Your task to perform on an android device: Show the shopping cart on walmart. Add razer kraken to the cart on walmart Image 0: 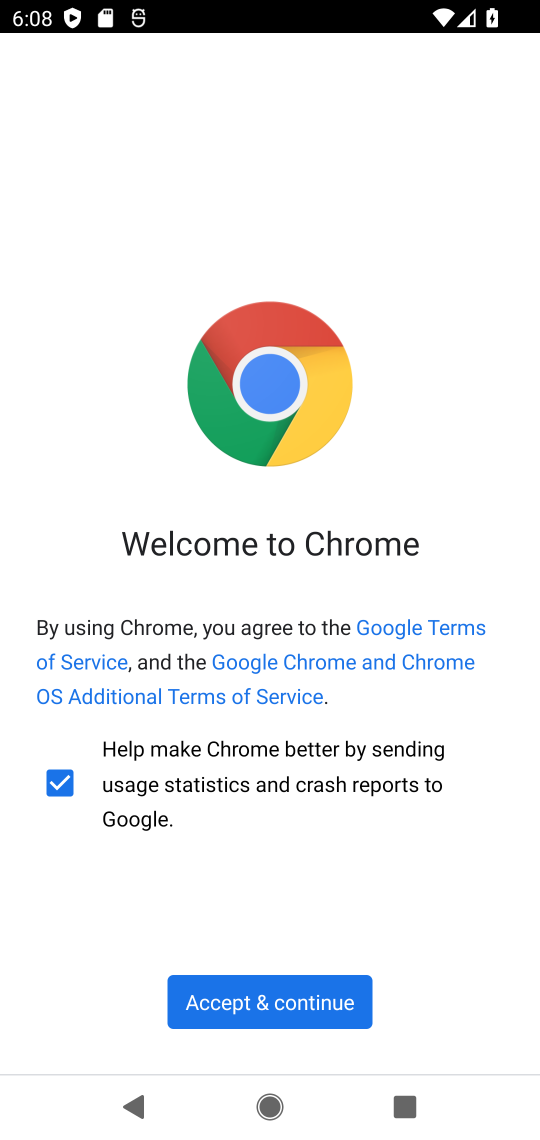
Step 0: click (200, 1009)
Your task to perform on an android device: Show the shopping cart on walmart. Add razer kraken to the cart on walmart Image 1: 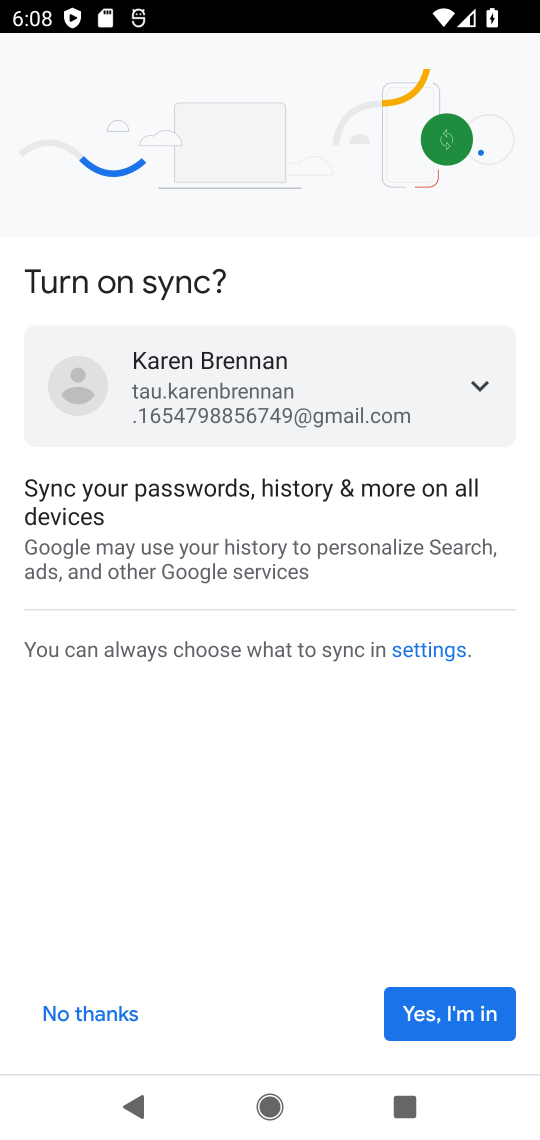
Step 1: click (428, 995)
Your task to perform on an android device: Show the shopping cart on walmart. Add razer kraken to the cart on walmart Image 2: 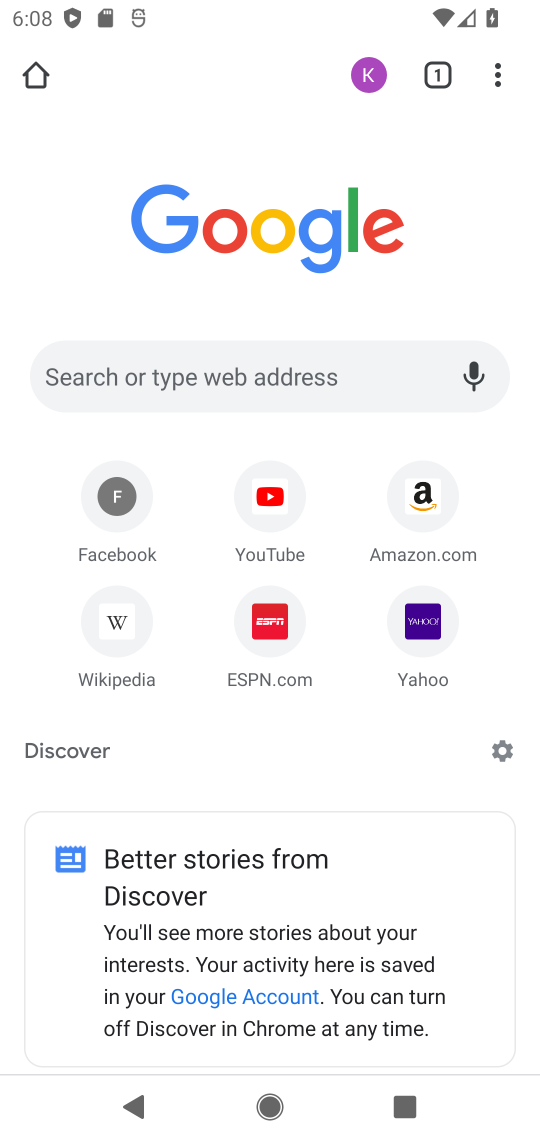
Step 2: click (287, 383)
Your task to perform on an android device: Show the shopping cart on walmart. Add razer kraken to the cart on walmart Image 3: 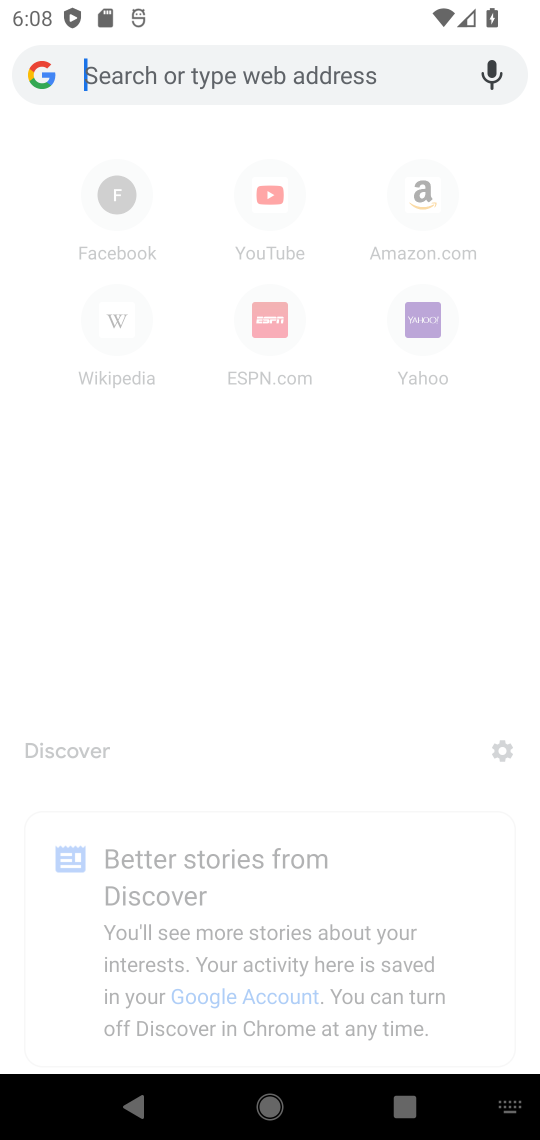
Step 3: type "walmart"
Your task to perform on an android device: Show the shopping cart on walmart. Add razer kraken to the cart on walmart Image 4: 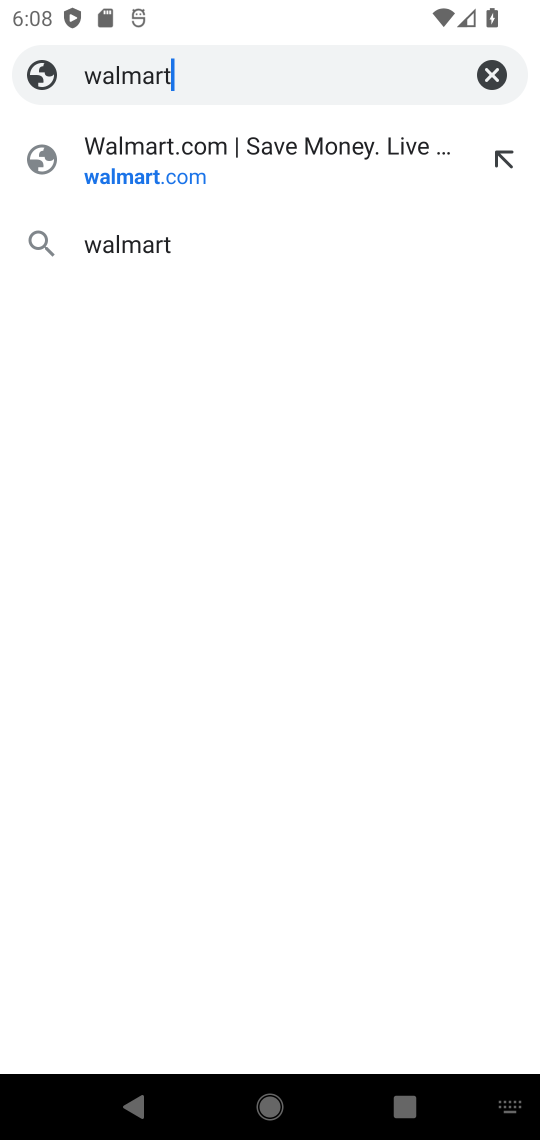
Step 4: click (201, 146)
Your task to perform on an android device: Show the shopping cart on walmart. Add razer kraken to the cart on walmart Image 5: 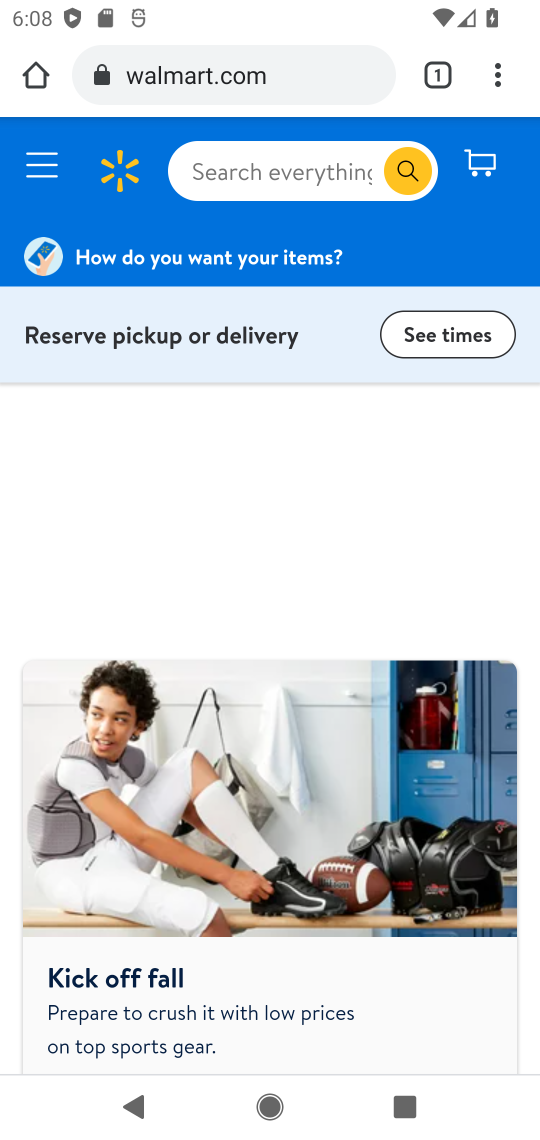
Step 5: click (478, 156)
Your task to perform on an android device: Show the shopping cart on walmart. Add razer kraken to the cart on walmart Image 6: 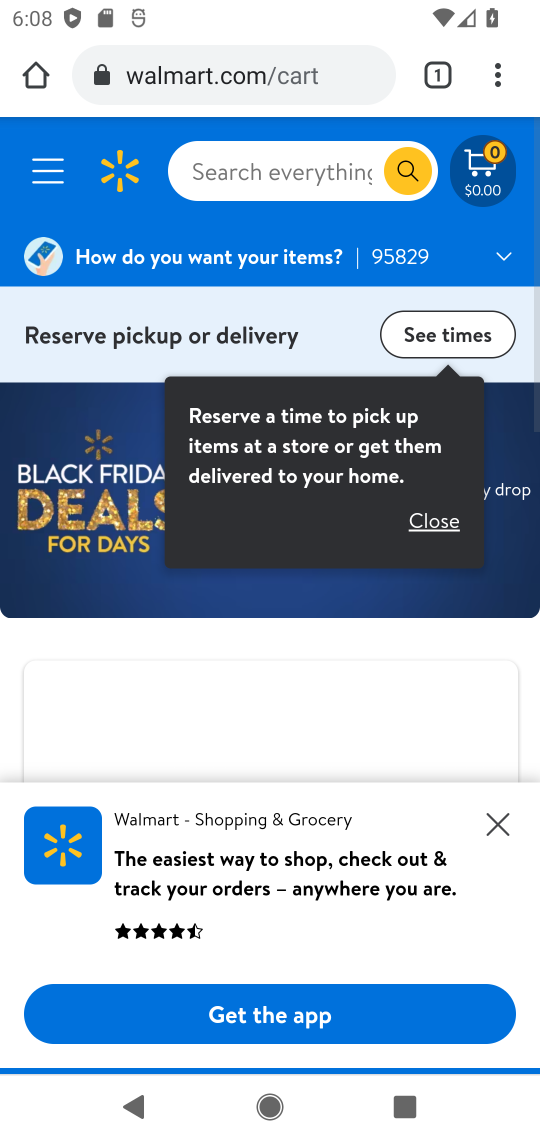
Step 6: click (485, 147)
Your task to perform on an android device: Show the shopping cart on walmart. Add razer kraken to the cart on walmart Image 7: 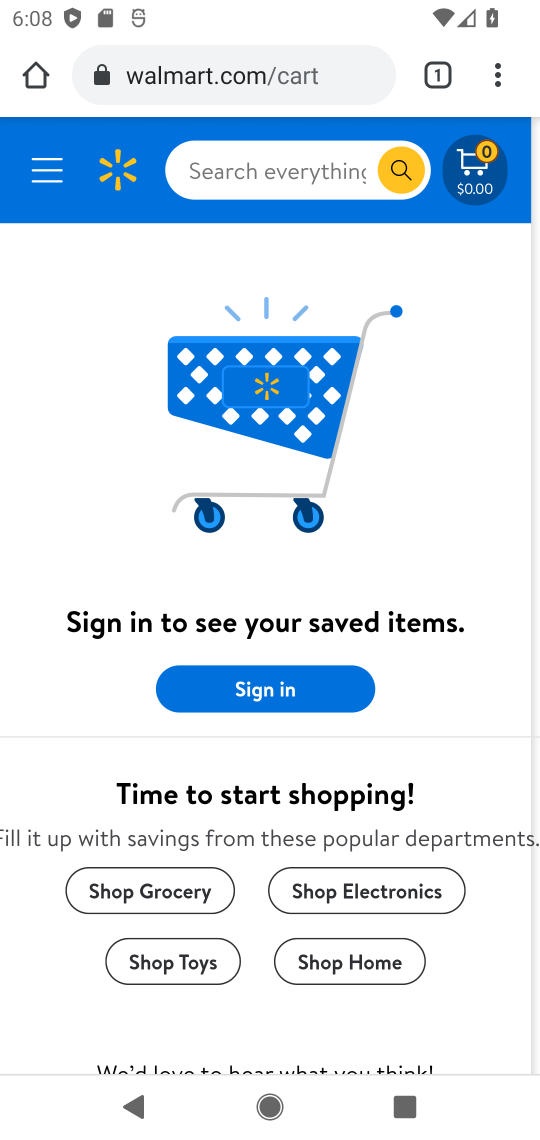
Step 7: click (297, 163)
Your task to perform on an android device: Show the shopping cart on walmart. Add razer kraken to the cart on walmart Image 8: 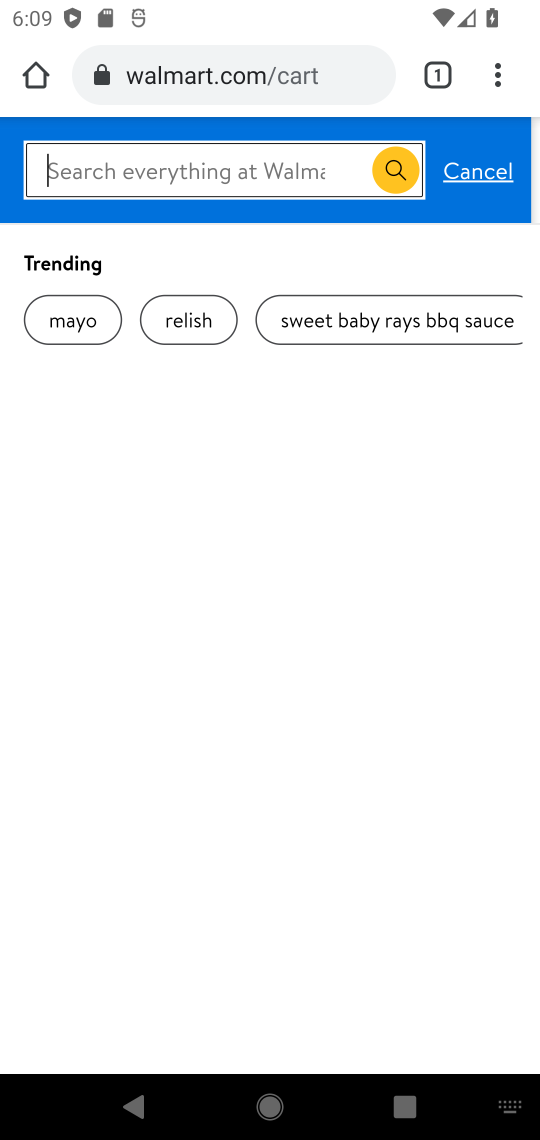
Step 8: type " razer kraken"
Your task to perform on an android device: Show the shopping cart on walmart. Add razer kraken to the cart on walmart Image 9: 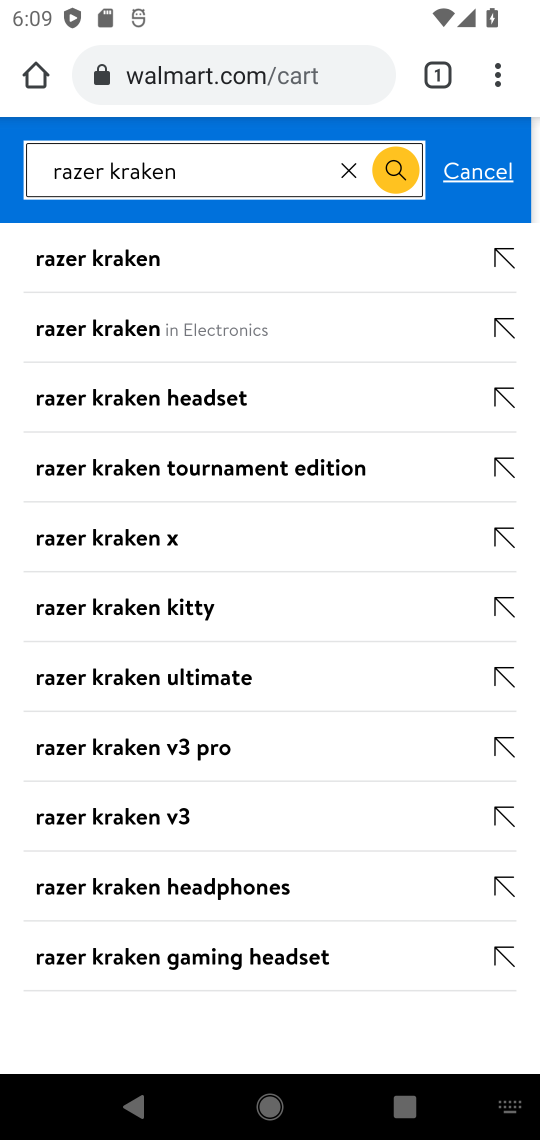
Step 9: click (93, 252)
Your task to perform on an android device: Show the shopping cart on walmart. Add razer kraken to the cart on walmart Image 10: 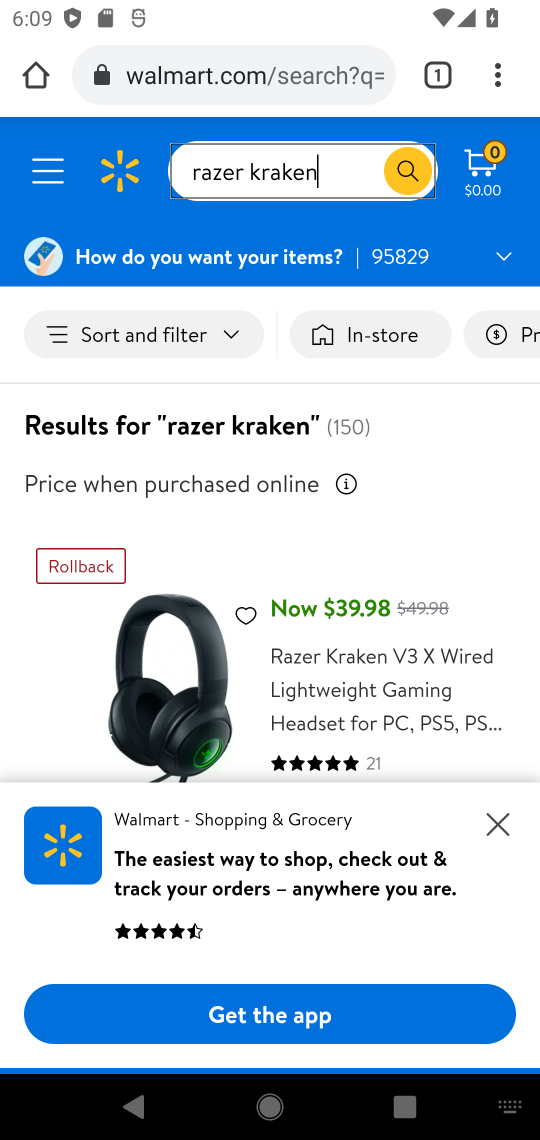
Step 10: click (86, 679)
Your task to perform on an android device: Show the shopping cart on walmart. Add razer kraken to the cart on walmart Image 11: 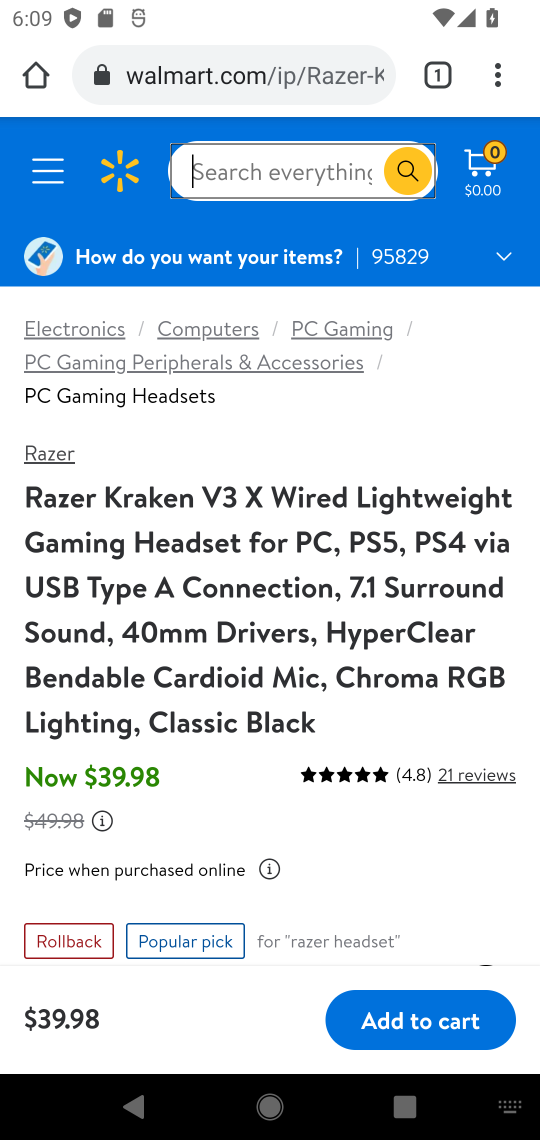
Step 11: drag from (400, 843) to (367, 423)
Your task to perform on an android device: Show the shopping cart on walmart. Add razer kraken to the cart on walmart Image 12: 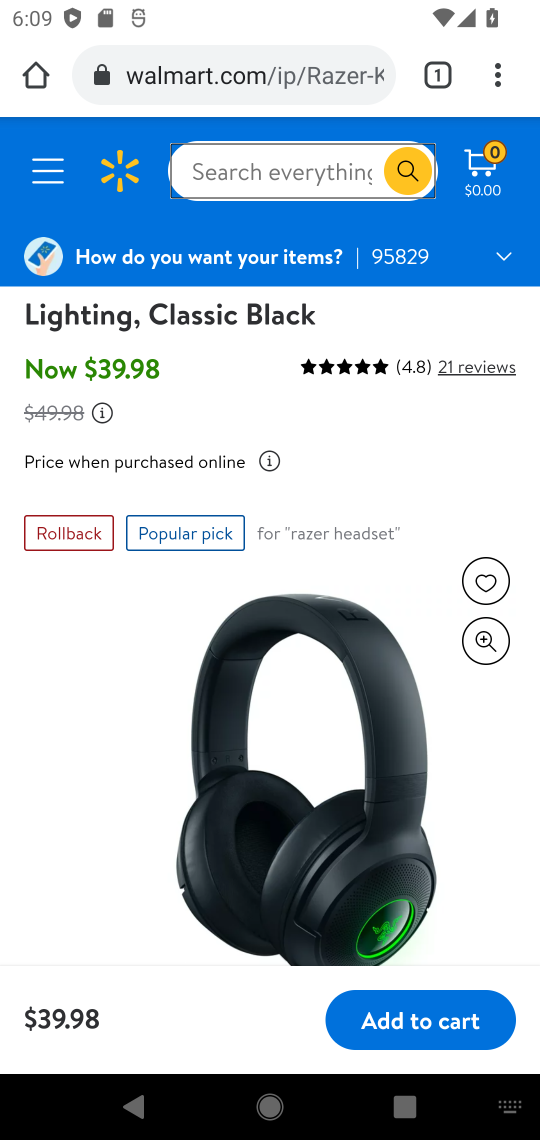
Step 12: drag from (364, 821) to (345, 328)
Your task to perform on an android device: Show the shopping cart on walmart. Add razer kraken to the cart on walmart Image 13: 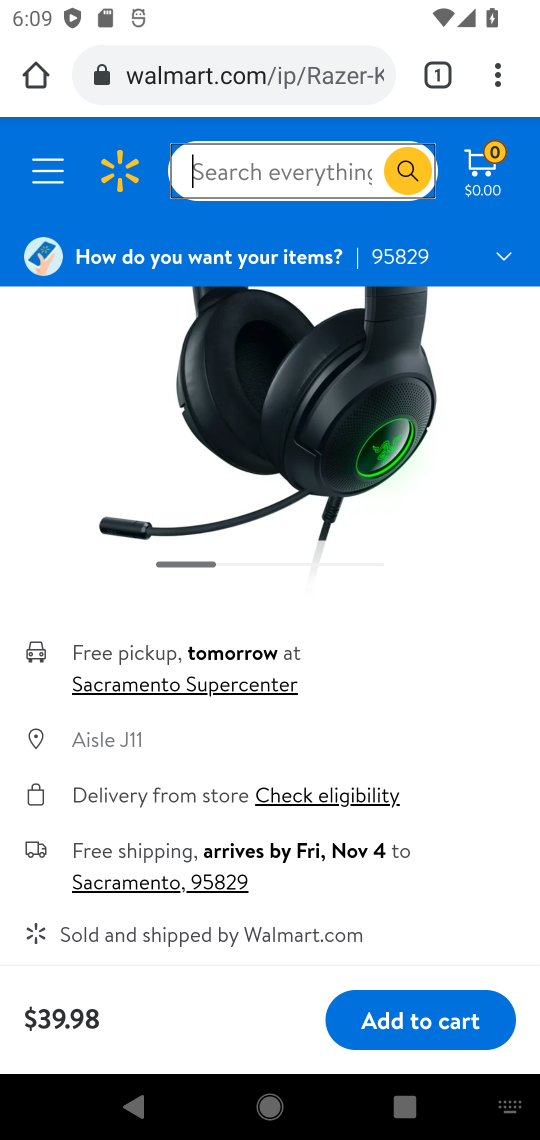
Step 13: click (442, 1016)
Your task to perform on an android device: Show the shopping cart on walmart. Add razer kraken to the cart on walmart Image 14: 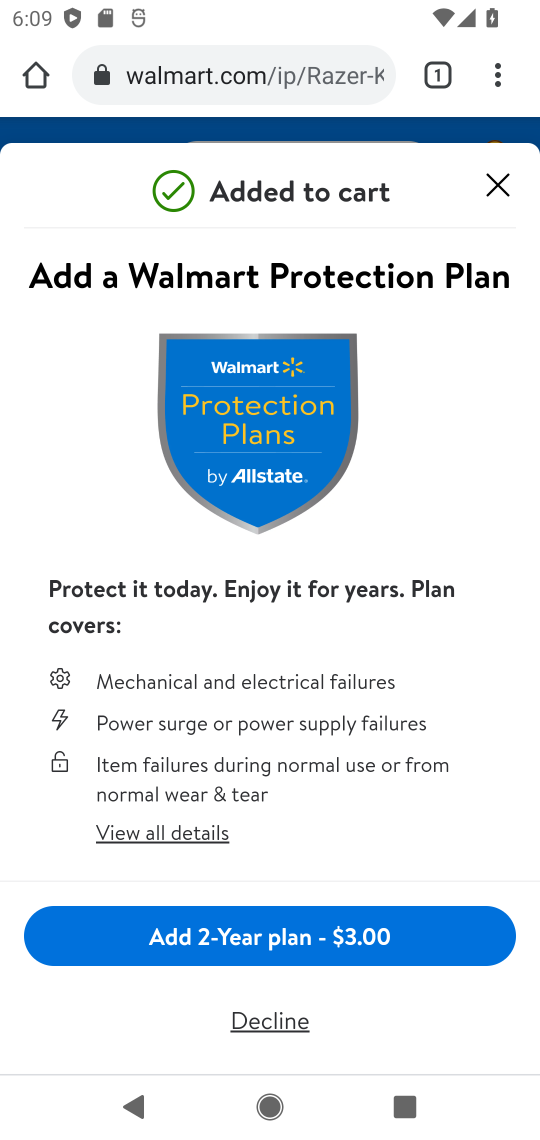
Step 14: task complete